Your task to perform on an android device: Open display settings Image 0: 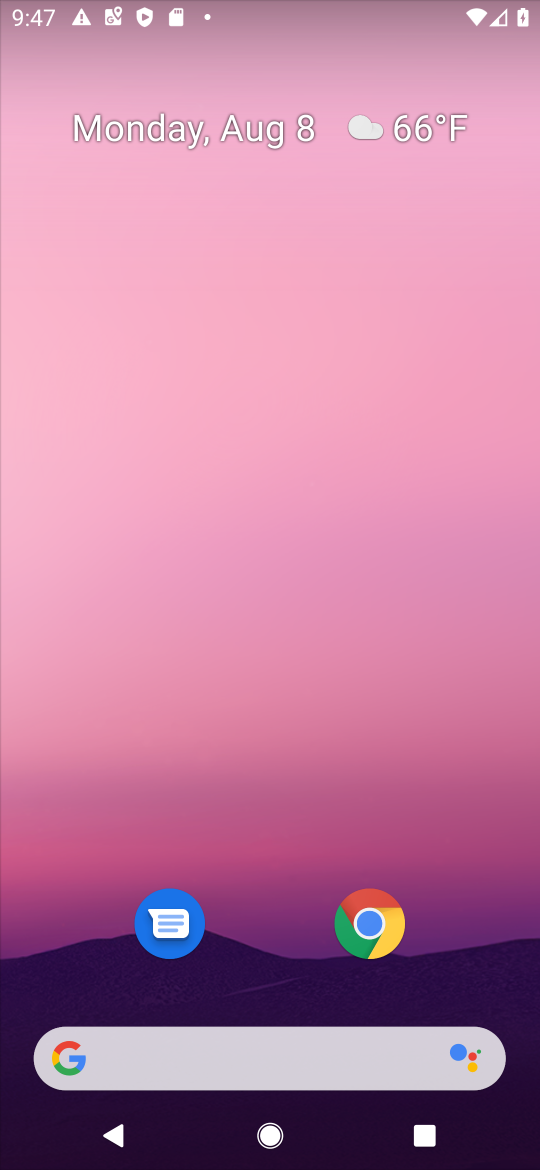
Step 0: drag from (42, 1128) to (65, 843)
Your task to perform on an android device: Open display settings Image 1: 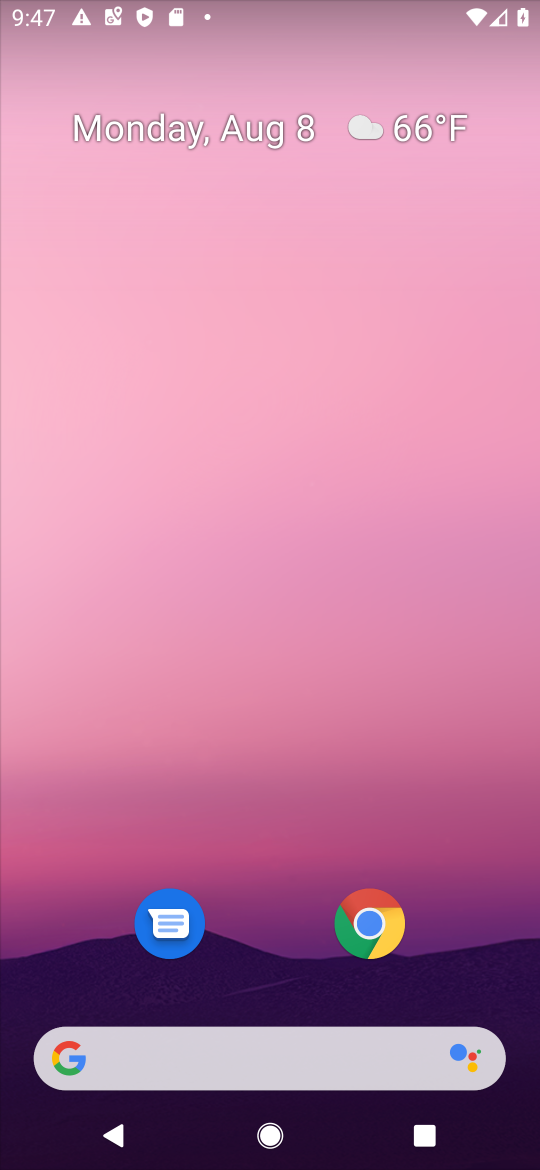
Step 1: drag from (59, 1140) to (151, 389)
Your task to perform on an android device: Open display settings Image 2: 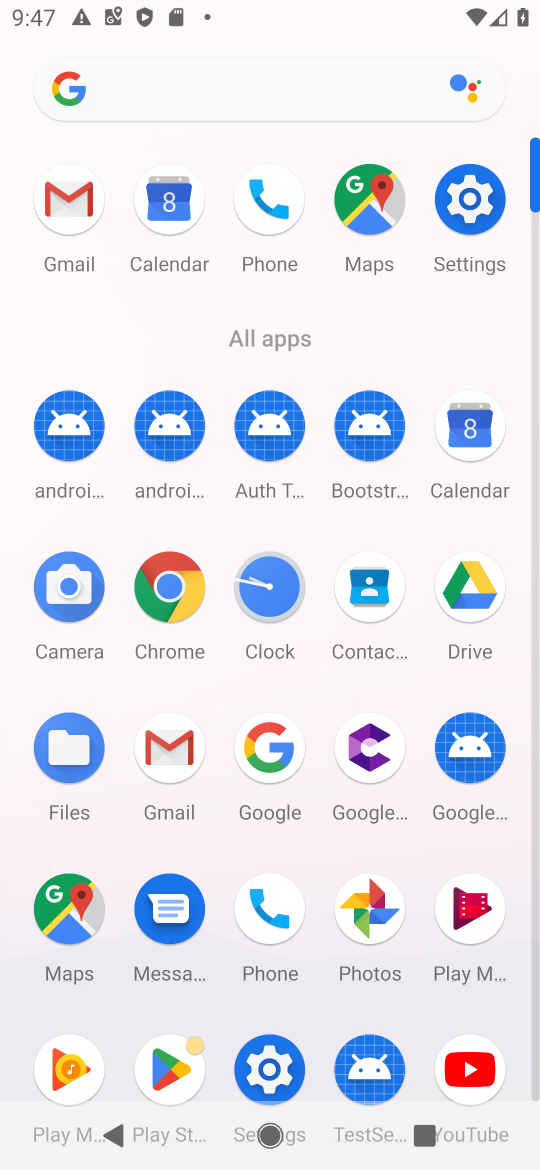
Step 2: click (262, 1065)
Your task to perform on an android device: Open display settings Image 3: 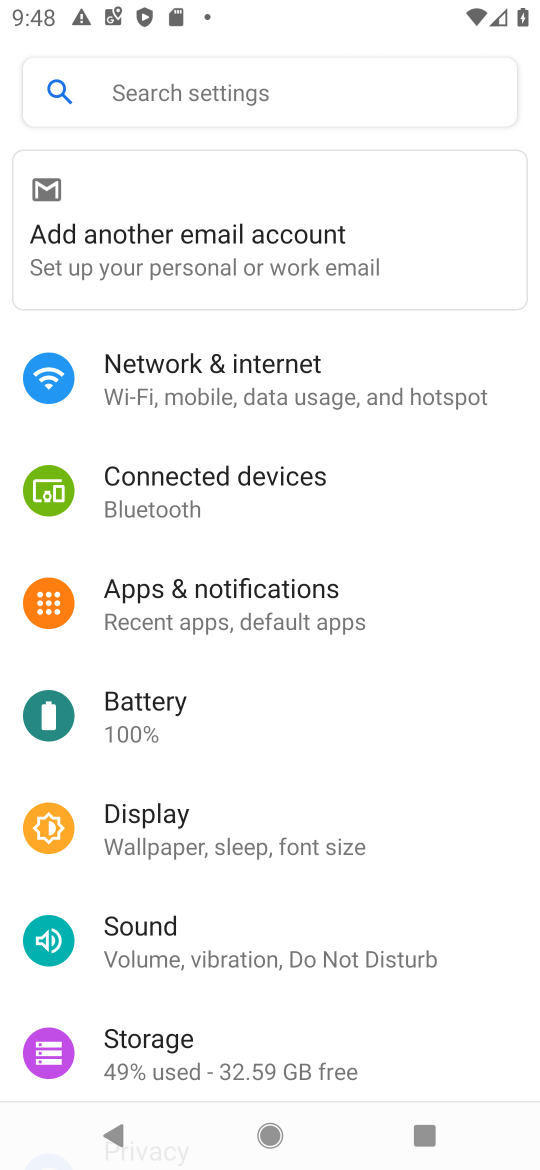
Step 3: click (193, 827)
Your task to perform on an android device: Open display settings Image 4: 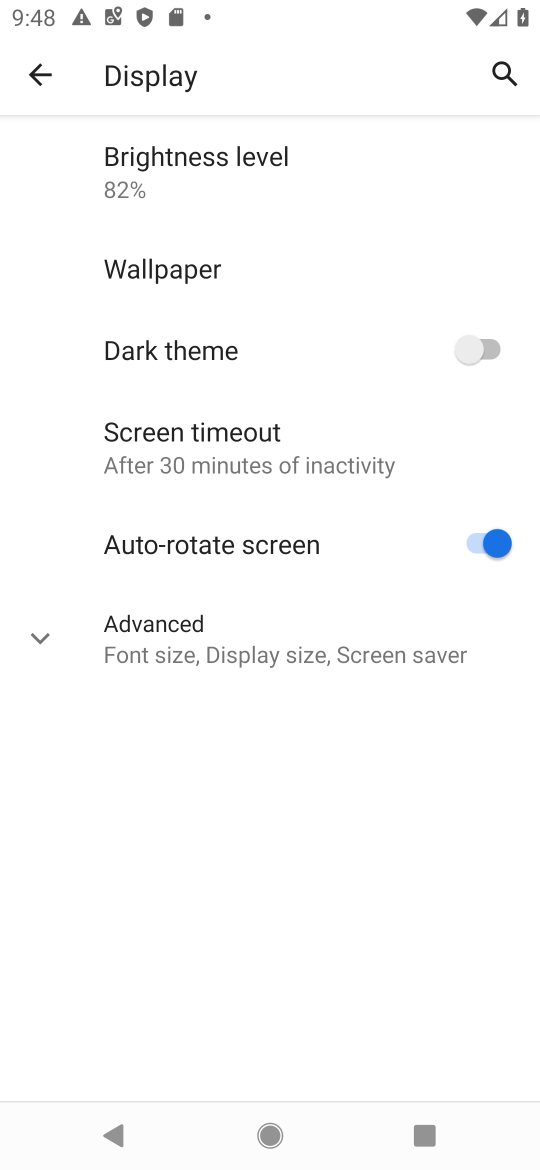
Step 4: task complete